Your task to perform on an android device: turn on notifications settings in the gmail app Image 0: 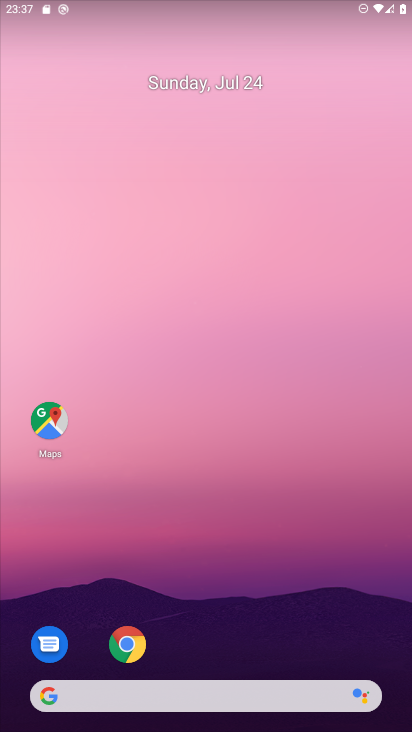
Step 0: drag from (380, 648) to (267, 151)
Your task to perform on an android device: turn on notifications settings in the gmail app Image 1: 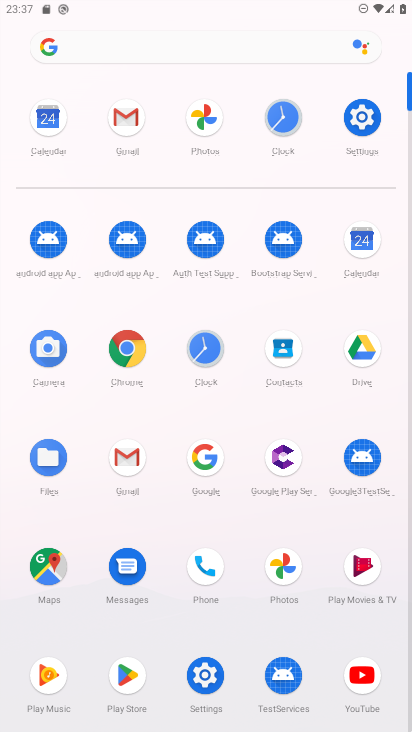
Step 1: click (127, 459)
Your task to perform on an android device: turn on notifications settings in the gmail app Image 2: 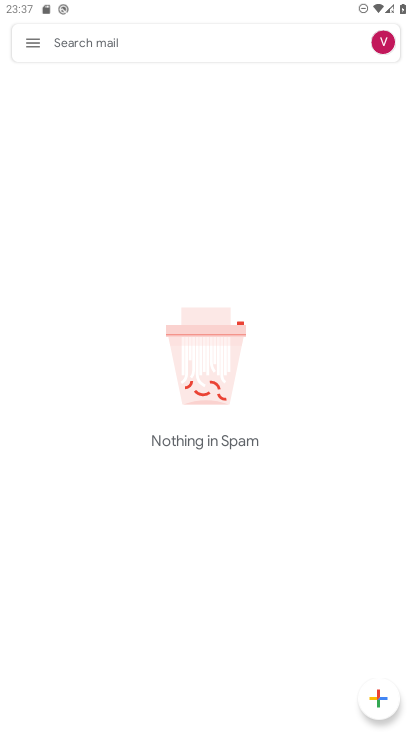
Step 2: click (29, 45)
Your task to perform on an android device: turn on notifications settings in the gmail app Image 3: 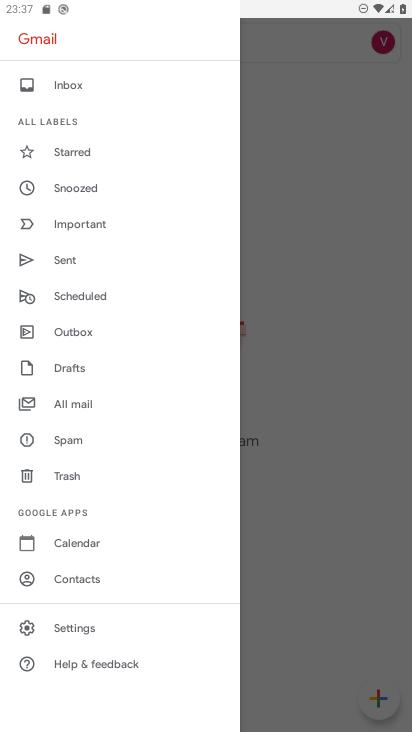
Step 3: click (74, 630)
Your task to perform on an android device: turn on notifications settings in the gmail app Image 4: 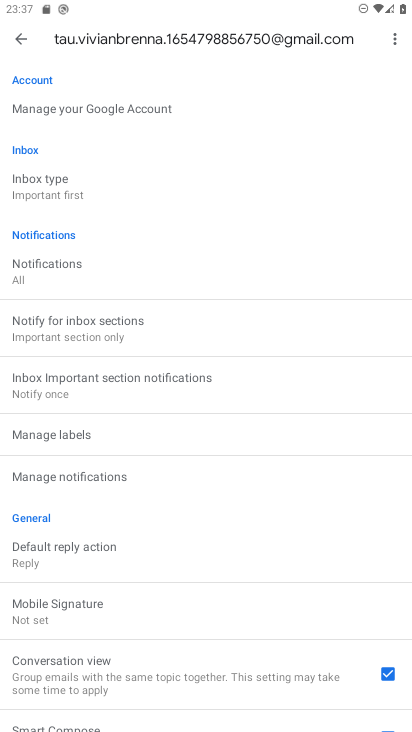
Step 4: click (58, 480)
Your task to perform on an android device: turn on notifications settings in the gmail app Image 5: 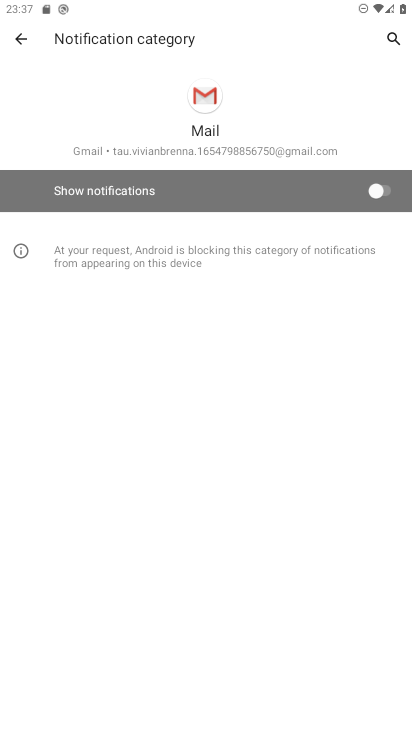
Step 5: click (386, 191)
Your task to perform on an android device: turn on notifications settings in the gmail app Image 6: 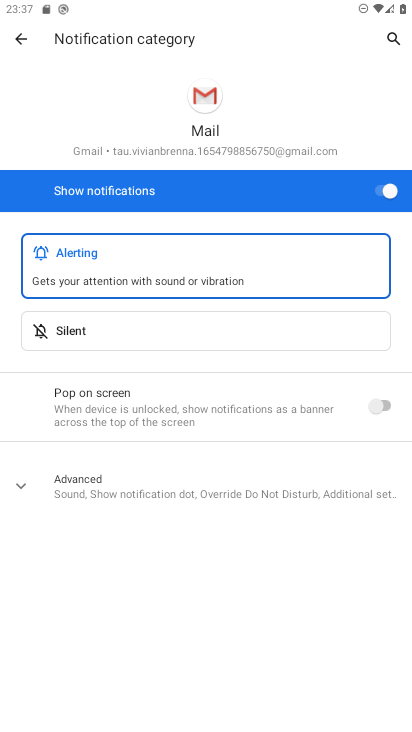
Step 6: task complete